Your task to perform on an android device: create a new album in the google photos Image 0: 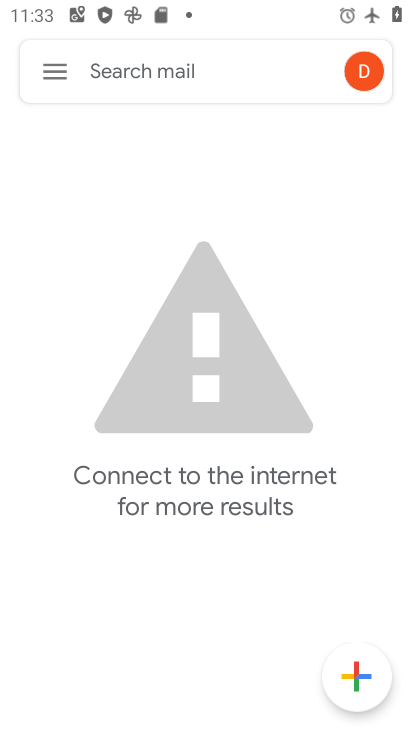
Step 0: press home button
Your task to perform on an android device: create a new album in the google photos Image 1: 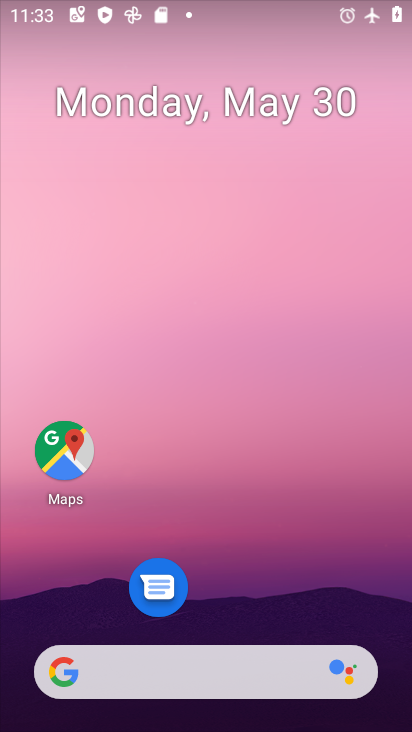
Step 1: drag from (227, 637) to (218, 38)
Your task to perform on an android device: create a new album in the google photos Image 2: 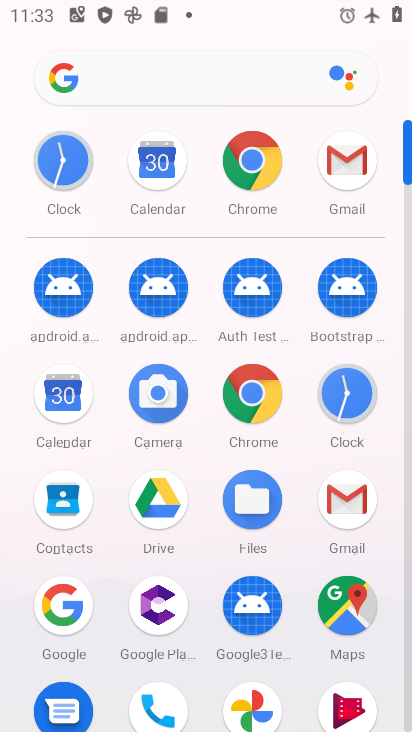
Step 2: click (248, 712)
Your task to perform on an android device: create a new album in the google photos Image 3: 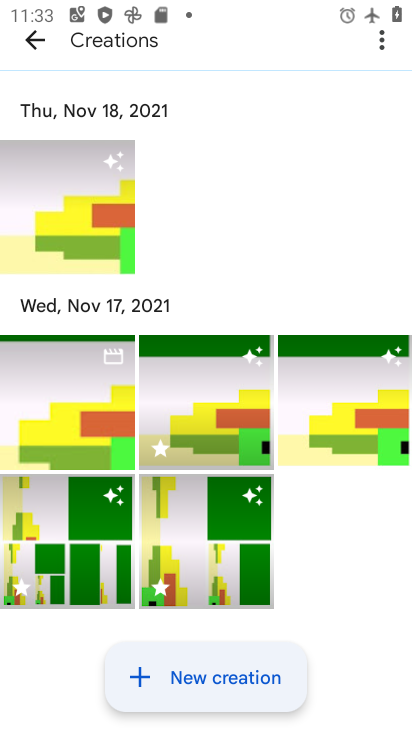
Step 3: click (54, 210)
Your task to perform on an android device: create a new album in the google photos Image 4: 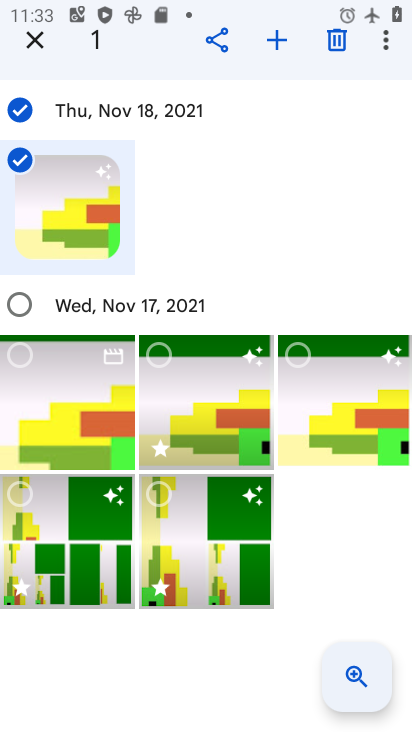
Step 4: click (288, 40)
Your task to perform on an android device: create a new album in the google photos Image 5: 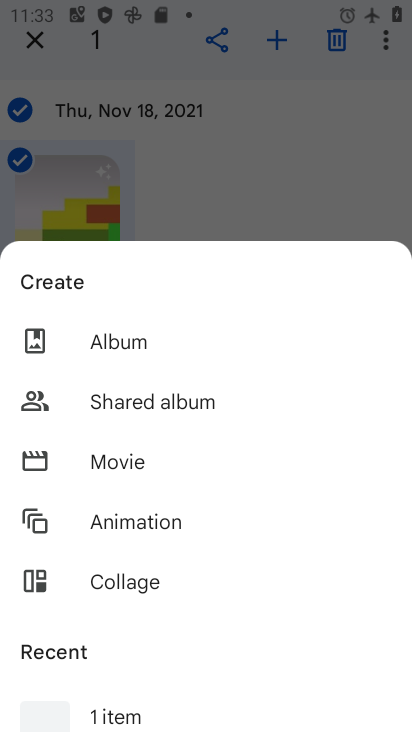
Step 5: click (121, 330)
Your task to perform on an android device: create a new album in the google photos Image 6: 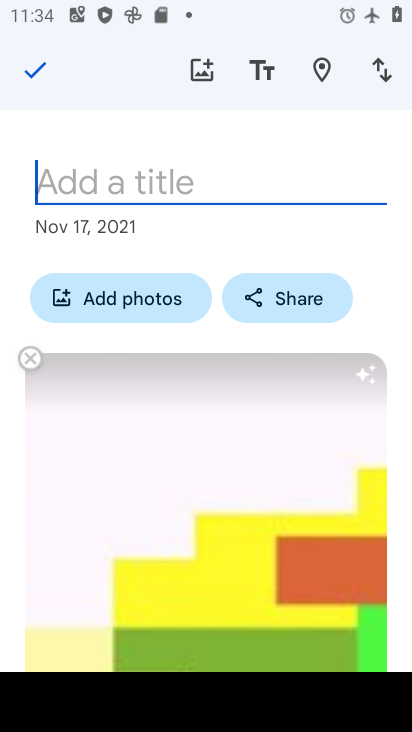
Step 6: type "mk'"
Your task to perform on an android device: create a new album in the google photos Image 7: 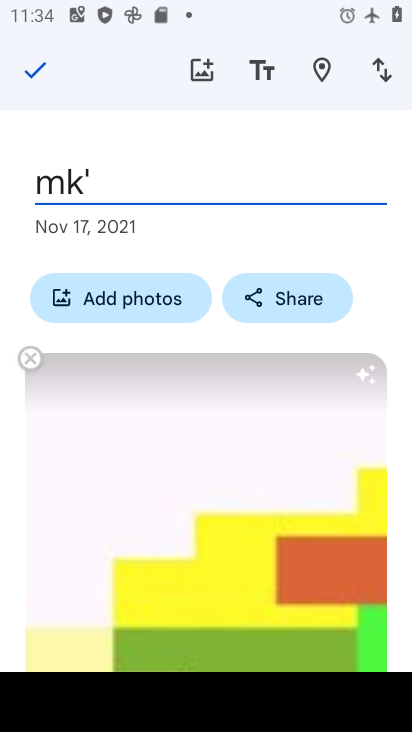
Step 7: click (12, 76)
Your task to perform on an android device: create a new album in the google photos Image 8: 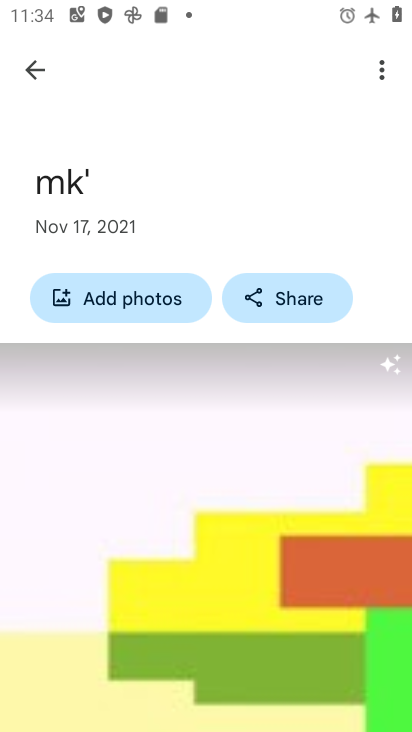
Step 8: task complete